Your task to perform on an android device: Go to Maps Image 0: 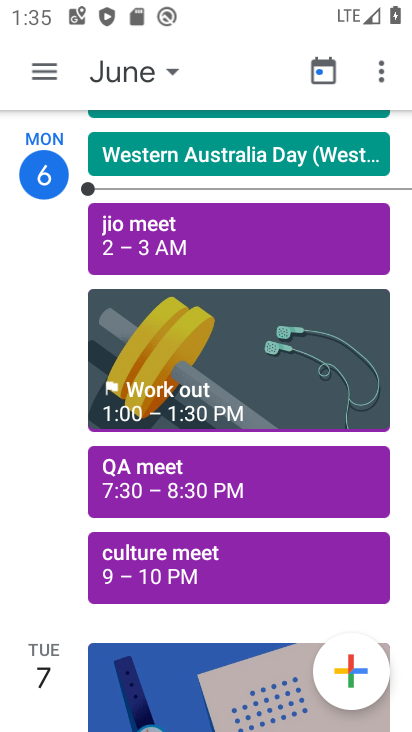
Step 0: press home button
Your task to perform on an android device: Go to Maps Image 1: 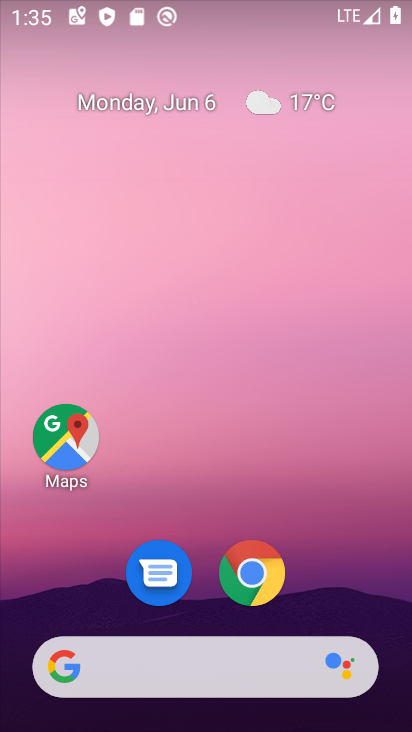
Step 1: drag from (366, 586) to (367, 165)
Your task to perform on an android device: Go to Maps Image 2: 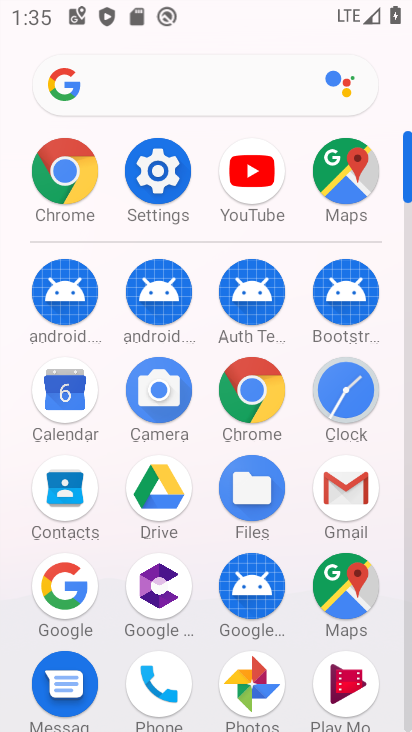
Step 2: click (357, 195)
Your task to perform on an android device: Go to Maps Image 3: 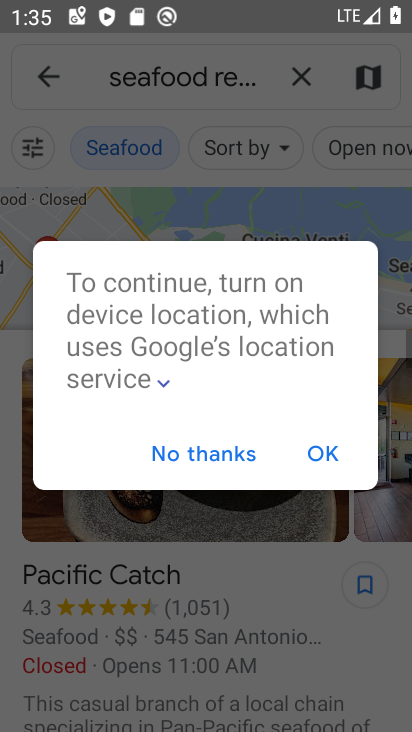
Step 3: task complete